Your task to perform on an android device: allow notifications from all sites in the chrome app Image 0: 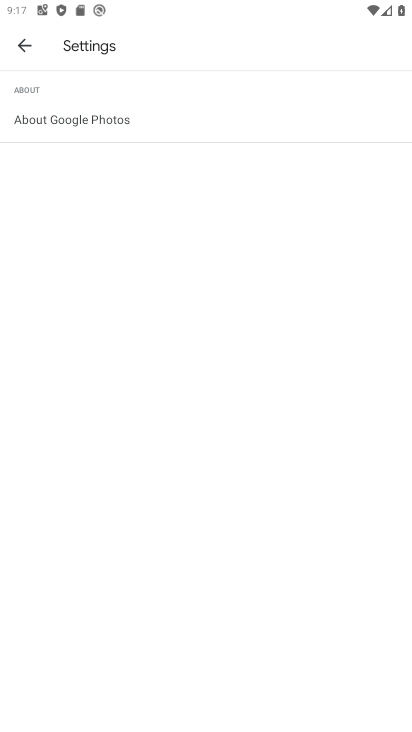
Step 0: press home button
Your task to perform on an android device: allow notifications from all sites in the chrome app Image 1: 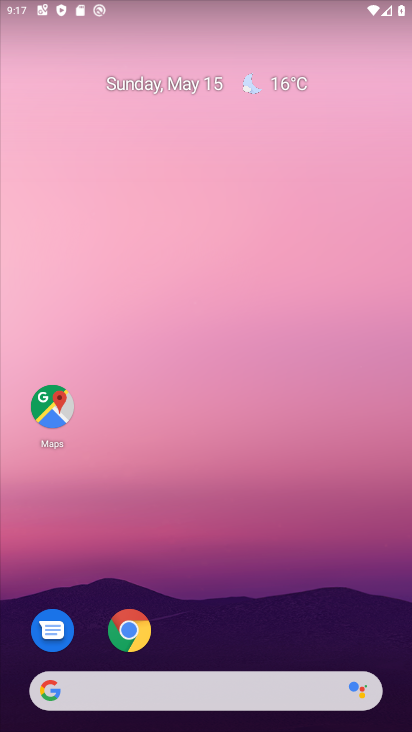
Step 1: click (119, 628)
Your task to perform on an android device: allow notifications from all sites in the chrome app Image 2: 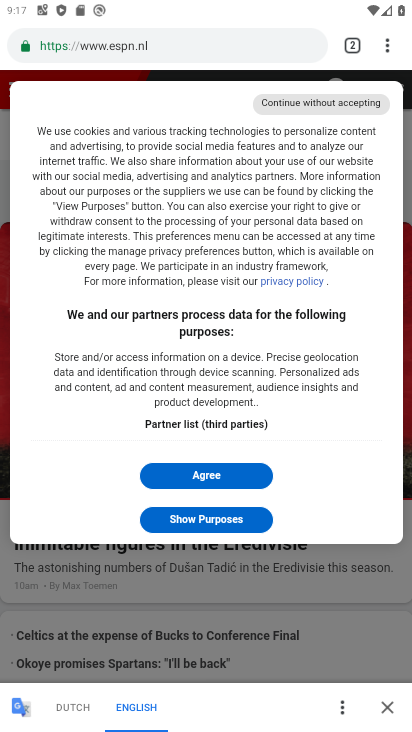
Step 2: drag from (391, 49) to (226, 493)
Your task to perform on an android device: allow notifications from all sites in the chrome app Image 3: 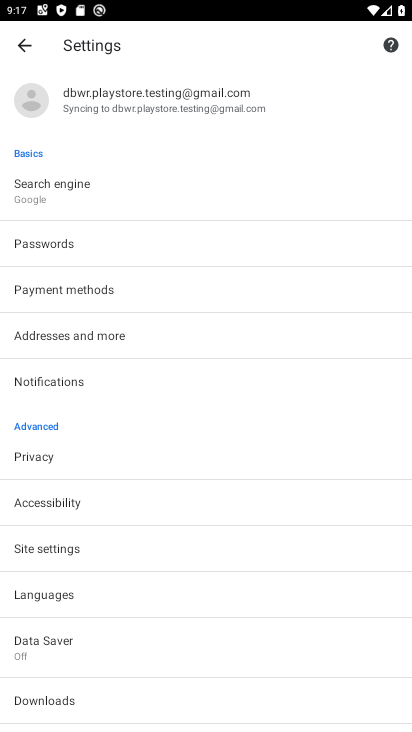
Step 3: drag from (132, 623) to (163, 426)
Your task to perform on an android device: allow notifications from all sites in the chrome app Image 4: 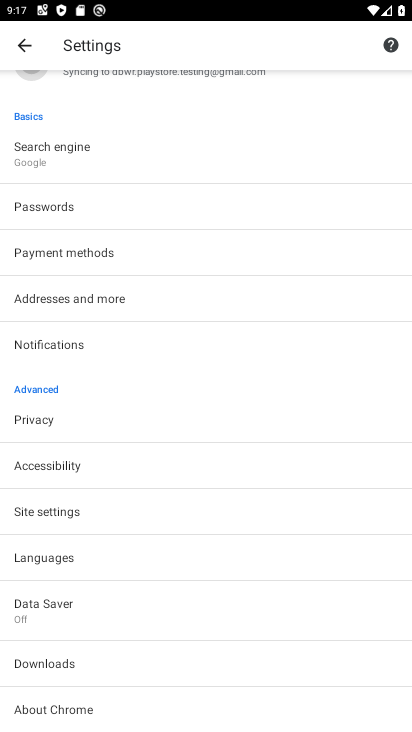
Step 4: click (75, 520)
Your task to perform on an android device: allow notifications from all sites in the chrome app Image 5: 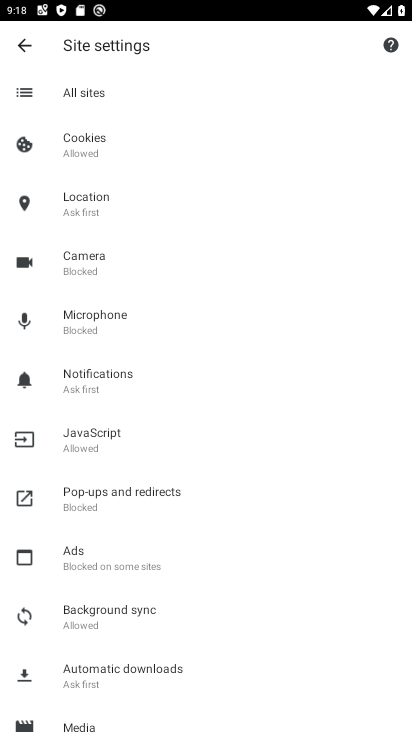
Step 5: click (115, 96)
Your task to perform on an android device: allow notifications from all sites in the chrome app Image 6: 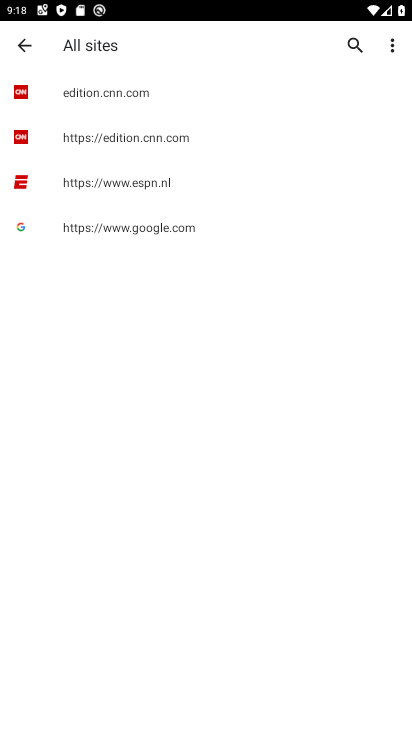
Step 6: click (152, 232)
Your task to perform on an android device: allow notifications from all sites in the chrome app Image 7: 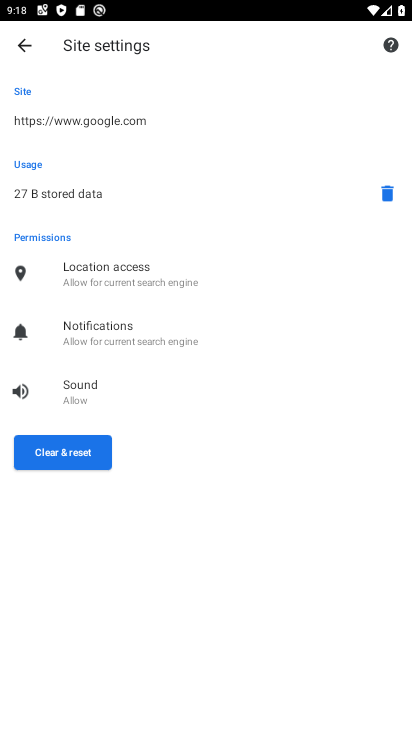
Step 7: click (153, 338)
Your task to perform on an android device: allow notifications from all sites in the chrome app Image 8: 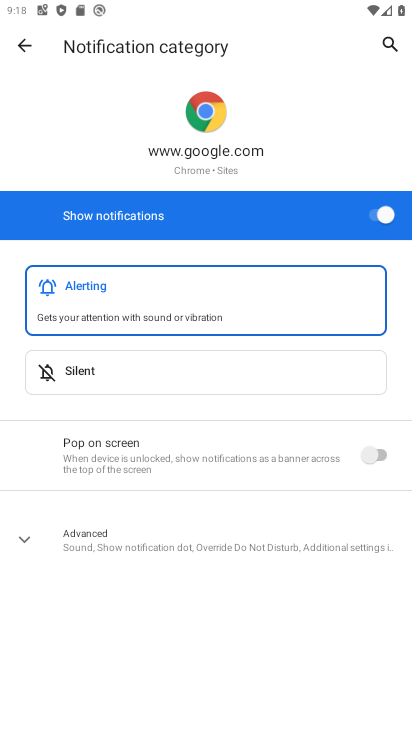
Step 8: task complete